Your task to perform on an android device: turn notification dots on Image 0: 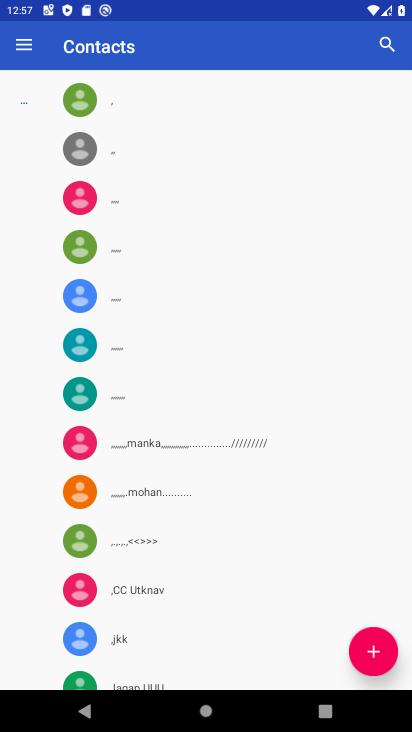
Step 0: press home button
Your task to perform on an android device: turn notification dots on Image 1: 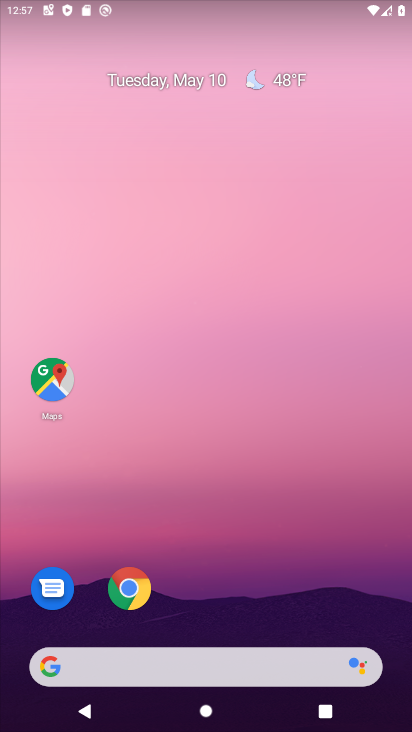
Step 1: drag from (289, 509) to (292, 188)
Your task to perform on an android device: turn notification dots on Image 2: 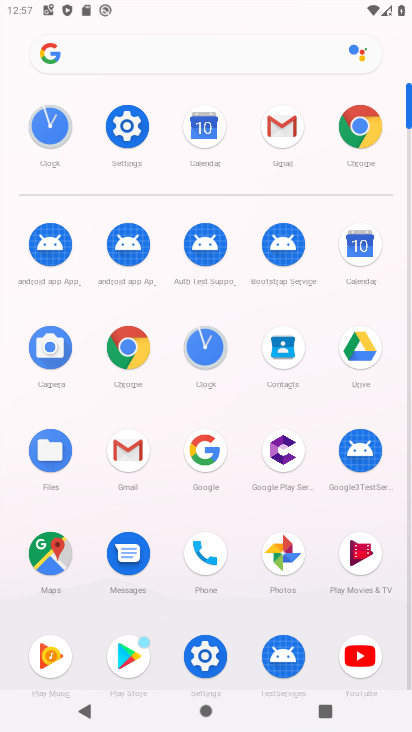
Step 2: click (135, 127)
Your task to perform on an android device: turn notification dots on Image 3: 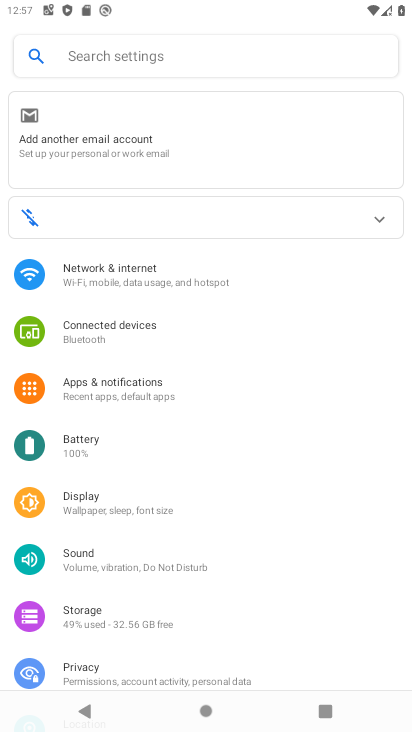
Step 3: click (139, 57)
Your task to perform on an android device: turn notification dots on Image 4: 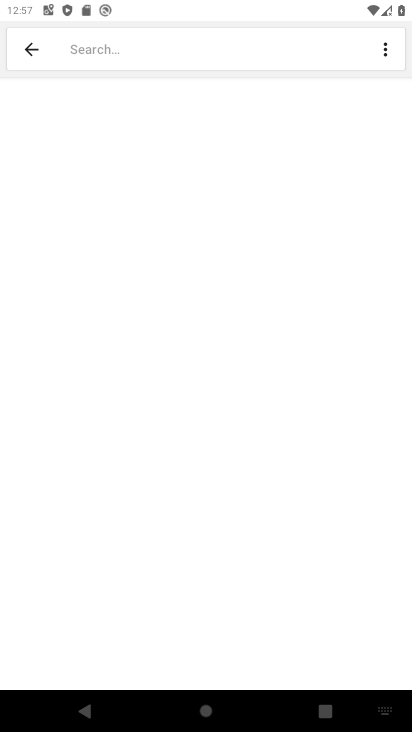
Step 4: click (248, 37)
Your task to perform on an android device: turn notification dots on Image 5: 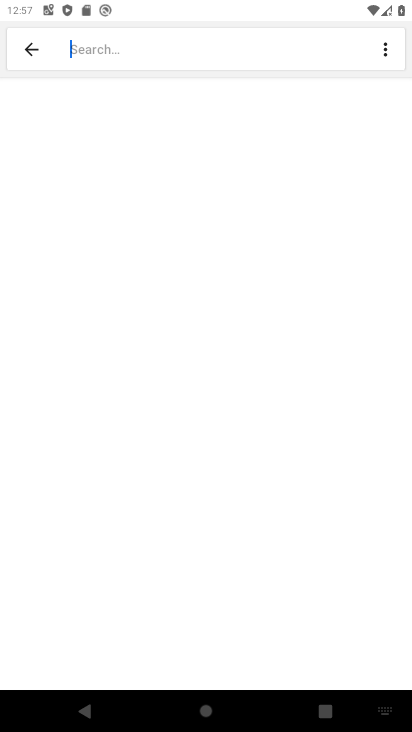
Step 5: type "notification dots on"
Your task to perform on an android device: turn notification dots on Image 6: 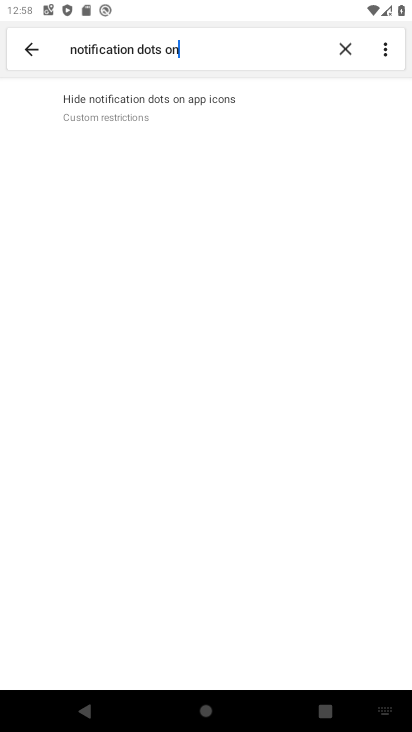
Step 6: click (114, 94)
Your task to perform on an android device: turn notification dots on Image 7: 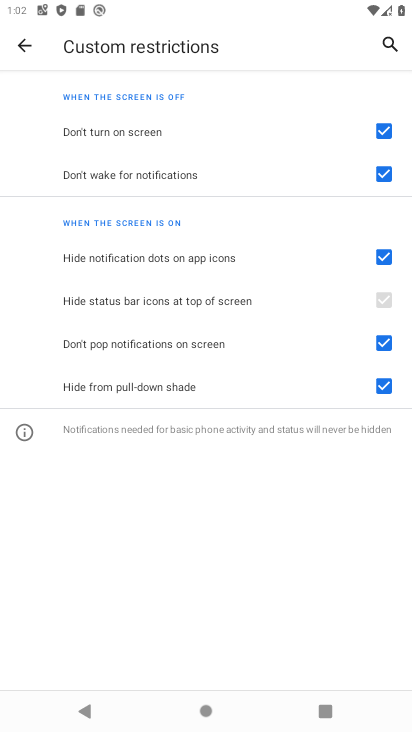
Step 7: task complete